Your task to perform on an android device: turn on data saver in the chrome app Image 0: 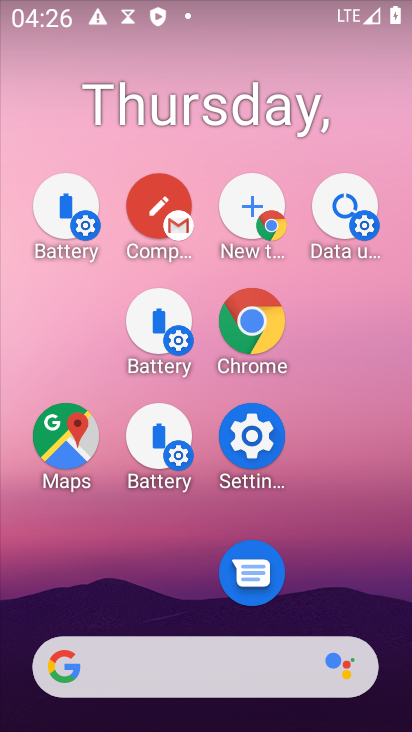
Step 0: click (235, 337)
Your task to perform on an android device: turn on data saver in the chrome app Image 1: 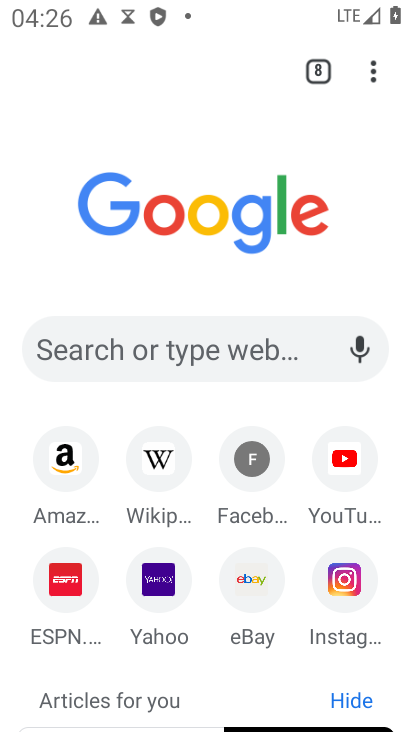
Step 1: drag from (341, 501) to (407, 233)
Your task to perform on an android device: turn on data saver in the chrome app Image 2: 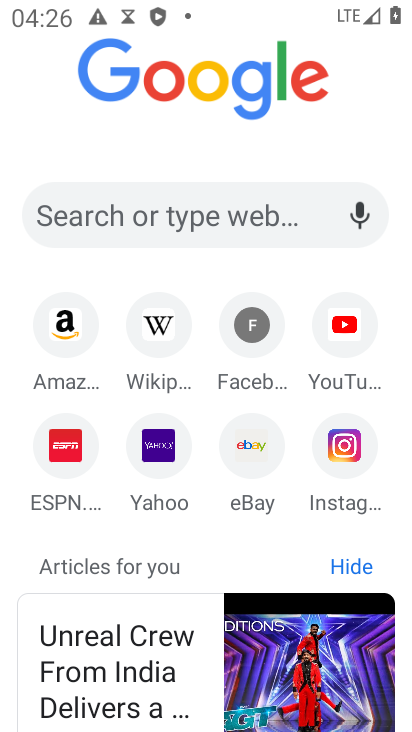
Step 2: press back button
Your task to perform on an android device: turn on data saver in the chrome app Image 3: 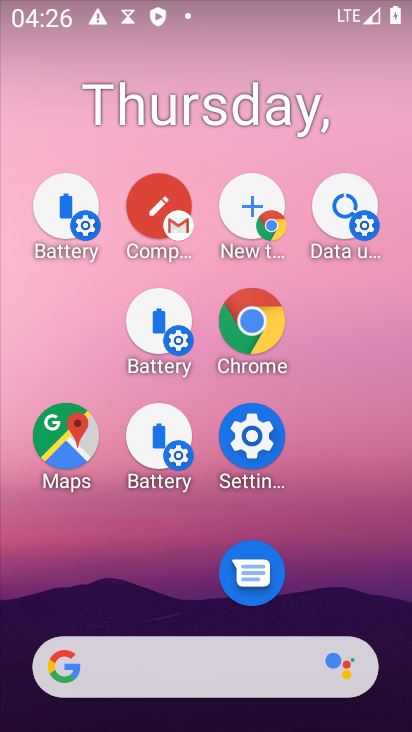
Step 3: click (179, 209)
Your task to perform on an android device: turn on data saver in the chrome app Image 4: 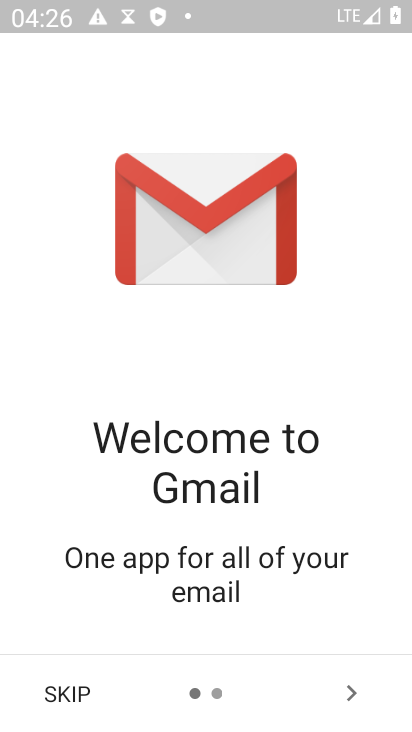
Step 4: press back button
Your task to perform on an android device: turn on data saver in the chrome app Image 5: 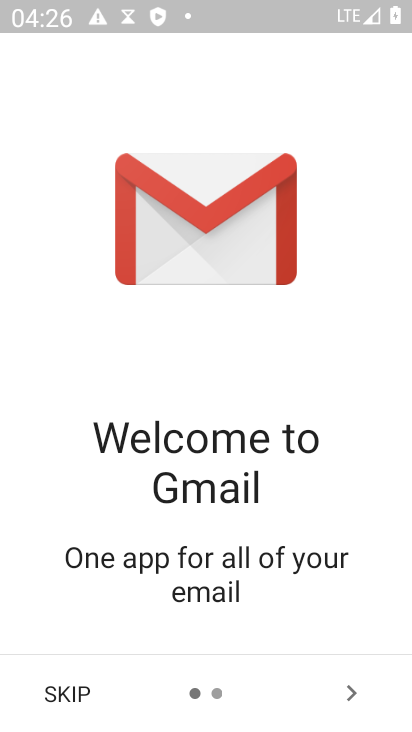
Step 5: press back button
Your task to perform on an android device: turn on data saver in the chrome app Image 6: 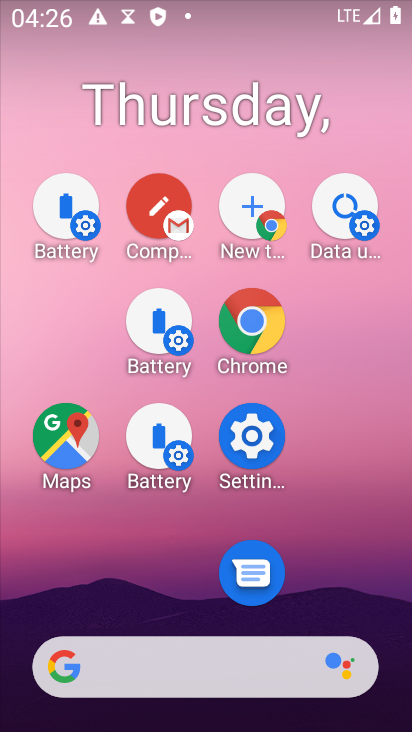
Step 6: drag from (282, 691) to (274, 350)
Your task to perform on an android device: turn on data saver in the chrome app Image 7: 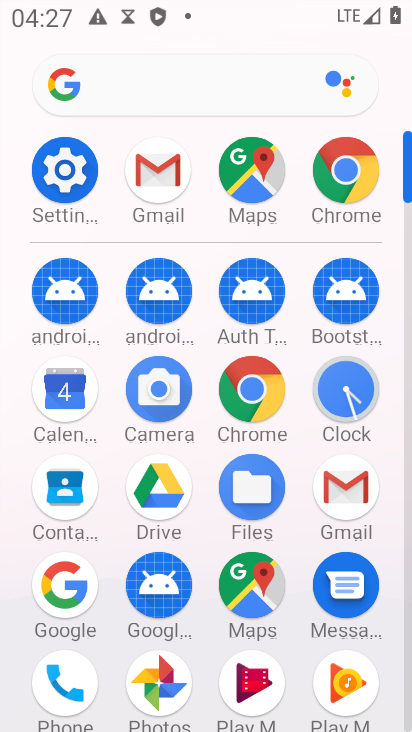
Step 7: click (338, 178)
Your task to perform on an android device: turn on data saver in the chrome app Image 8: 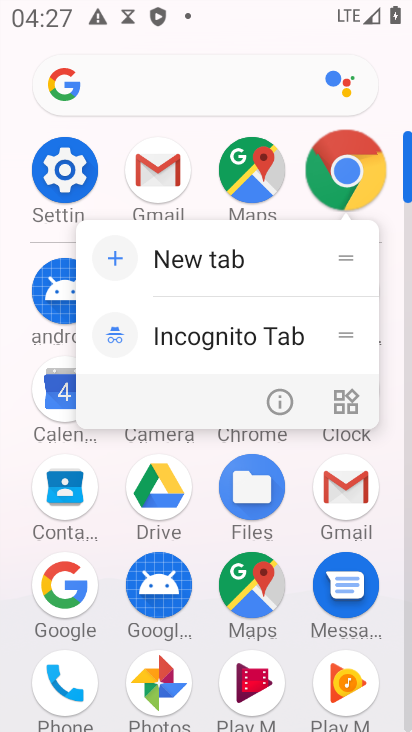
Step 8: click (338, 178)
Your task to perform on an android device: turn on data saver in the chrome app Image 9: 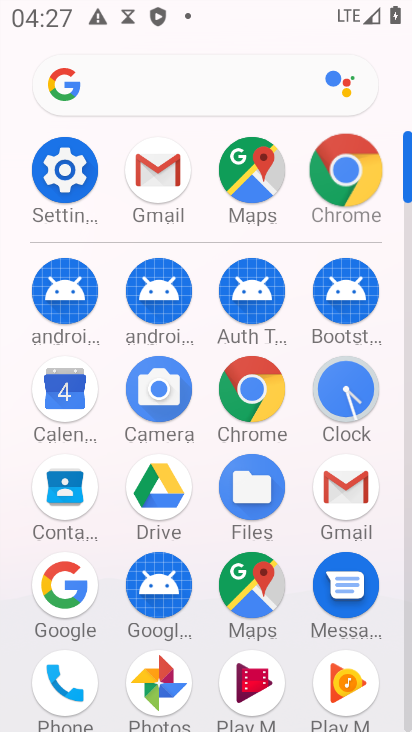
Step 9: click (339, 178)
Your task to perform on an android device: turn on data saver in the chrome app Image 10: 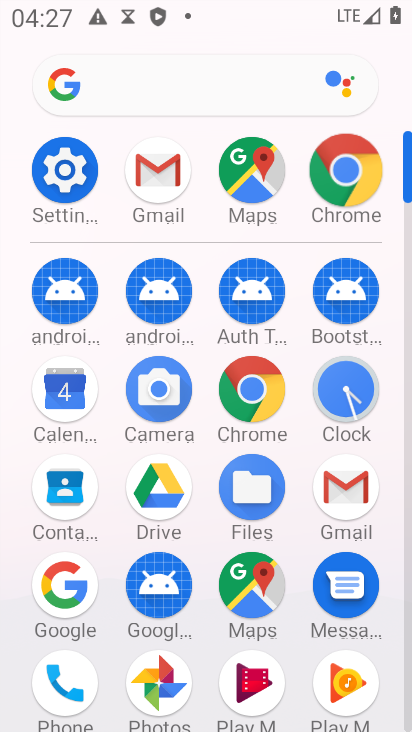
Step 10: click (341, 176)
Your task to perform on an android device: turn on data saver in the chrome app Image 11: 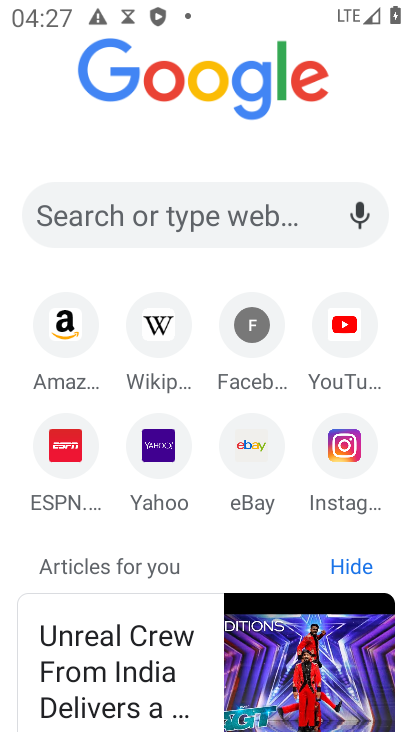
Step 11: drag from (357, 97) to (386, 303)
Your task to perform on an android device: turn on data saver in the chrome app Image 12: 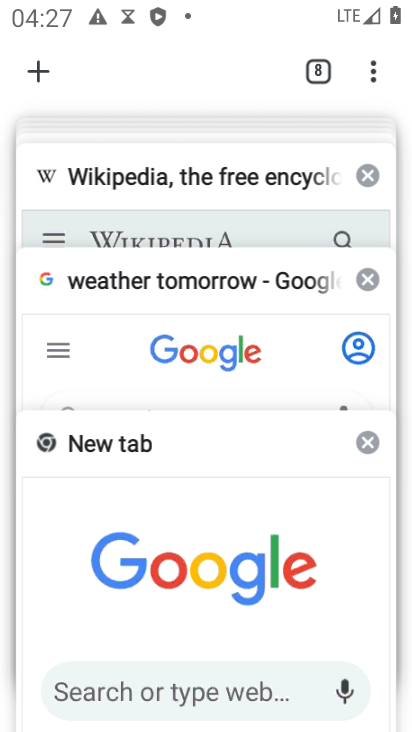
Step 12: drag from (372, 75) to (134, 268)
Your task to perform on an android device: turn on data saver in the chrome app Image 13: 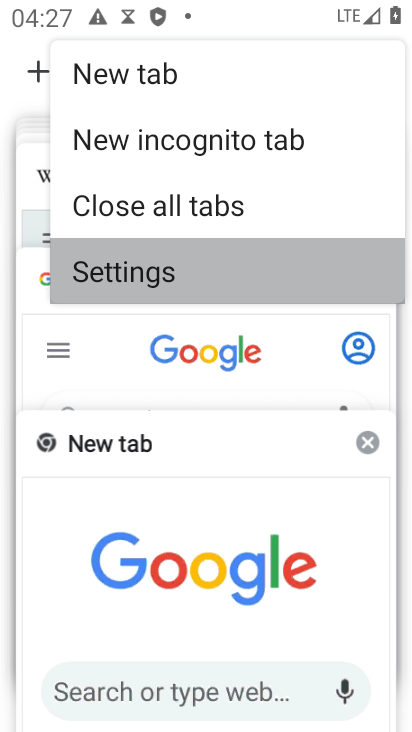
Step 13: click (134, 270)
Your task to perform on an android device: turn on data saver in the chrome app Image 14: 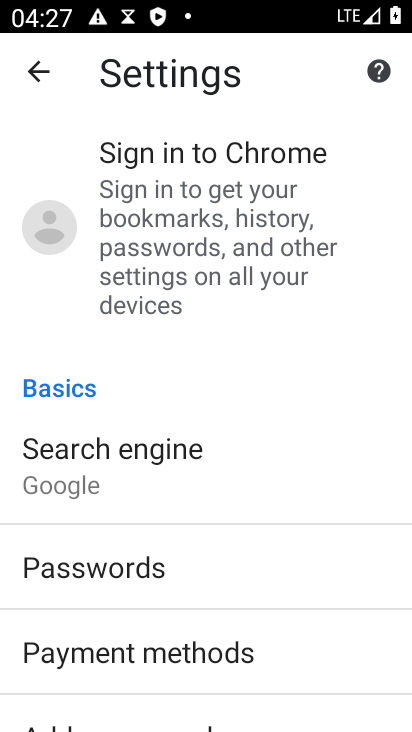
Step 14: drag from (94, 633) to (109, 164)
Your task to perform on an android device: turn on data saver in the chrome app Image 15: 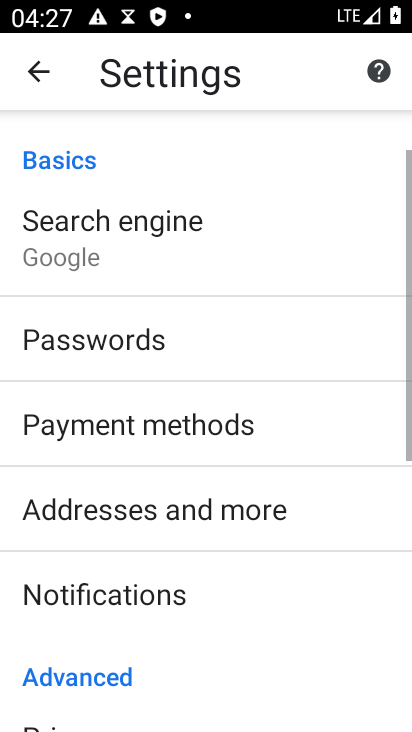
Step 15: drag from (283, 669) to (237, 242)
Your task to perform on an android device: turn on data saver in the chrome app Image 16: 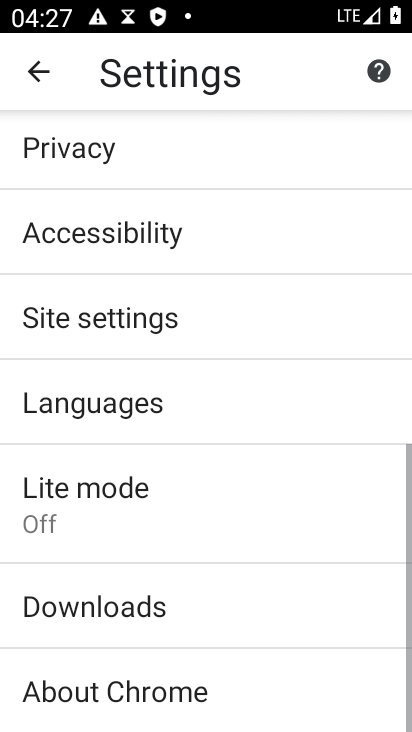
Step 16: drag from (165, 451) to (136, 207)
Your task to perform on an android device: turn on data saver in the chrome app Image 17: 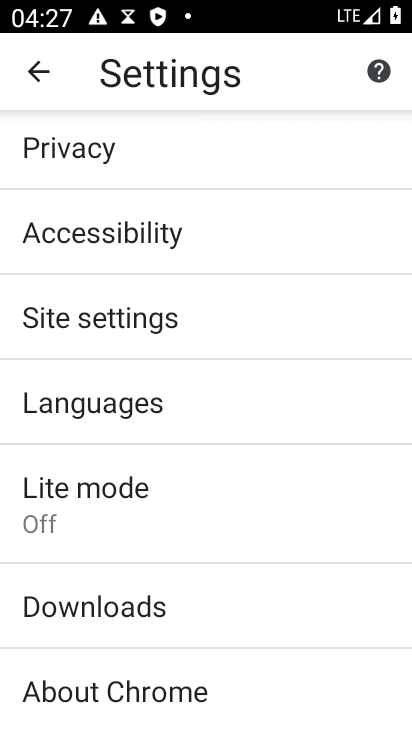
Step 17: click (108, 481)
Your task to perform on an android device: turn on data saver in the chrome app Image 18: 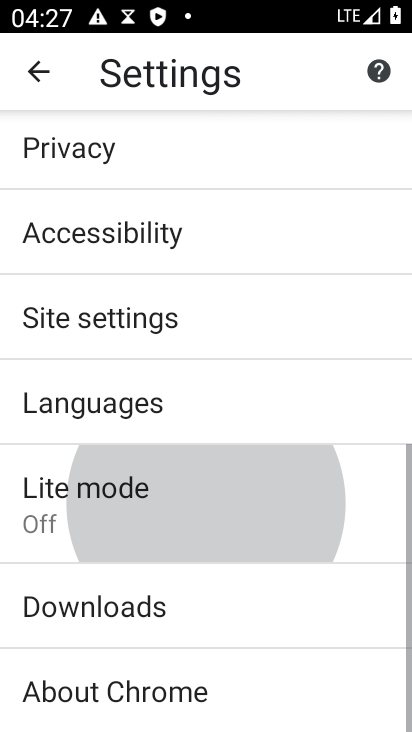
Step 18: click (108, 481)
Your task to perform on an android device: turn on data saver in the chrome app Image 19: 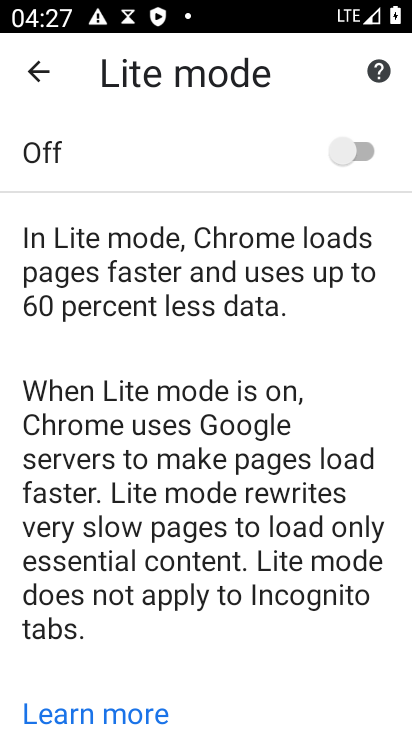
Step 19: click (351, 147)
Your task to perform on an android device: turn on data saver in the chrome app Image 20: 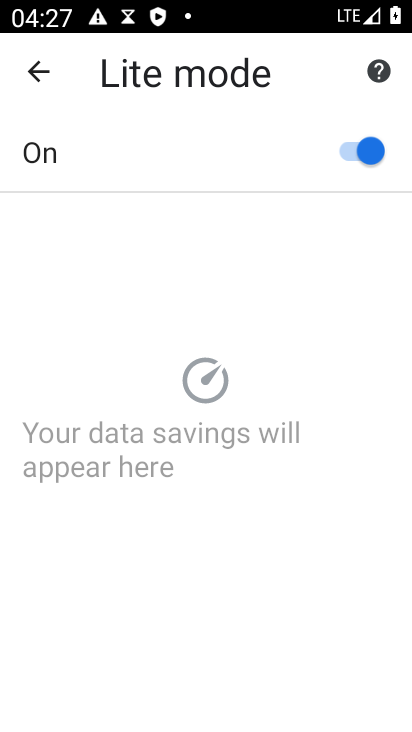
Step 20: task complete